Your task to perform on an android device: add a contact Image 0: 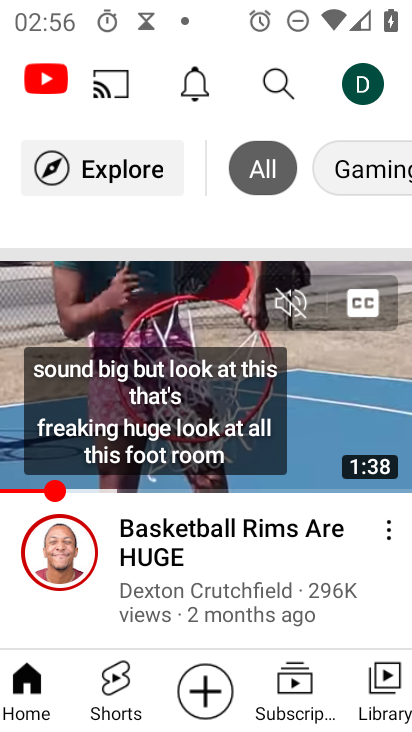
Step 0: press home button
Your task to perform on an android device: add a contact Image 1: 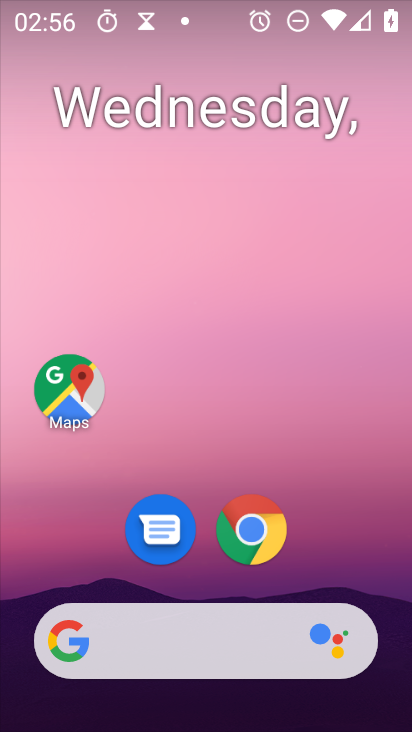
Step 1: drag from (170, 660) to (248, 2)
Your task to perform on an android device: add a contact Image 2: 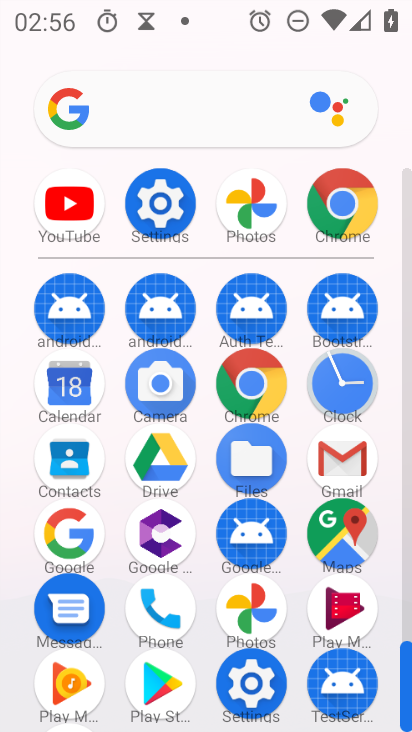
Step 2: click (50, 452)
Your task to perform on an android device: add a contact Image 3: 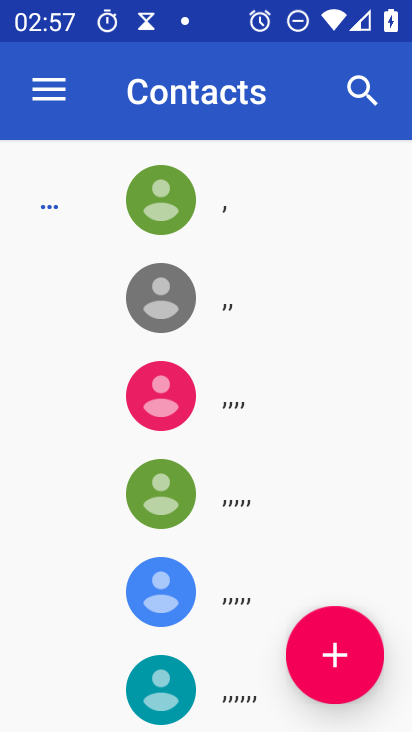
Step 3: click (311, 644)
Your task to perform on an android device: add a contact Image 4: 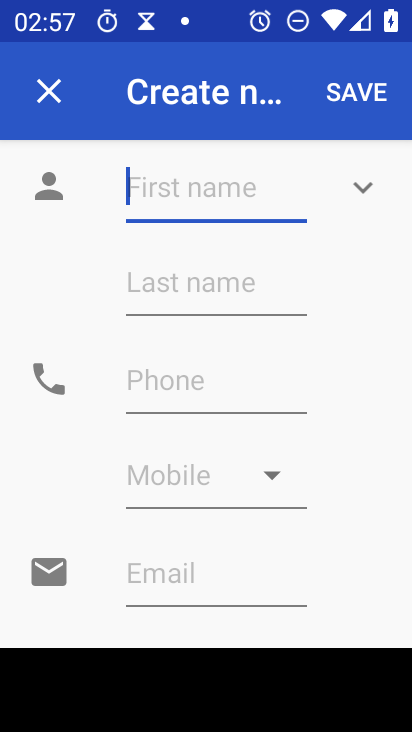
Step 4: type "hjfhhjhfj"
Your task to perform on an android device: add a contact Image 5: 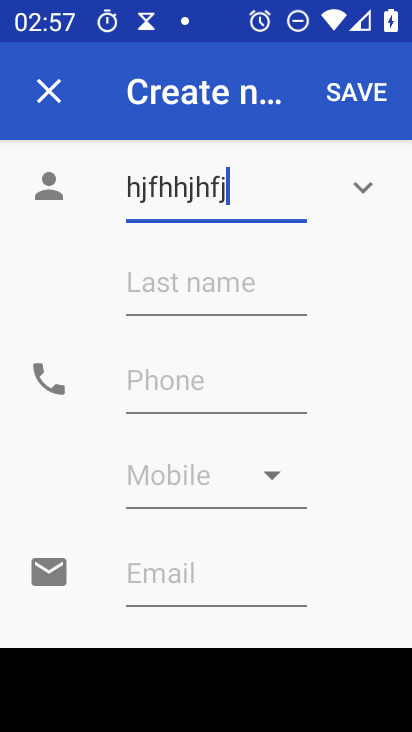
Step 5: click (238, 369)
Your task to perform on an android device: add a contact Image 6: 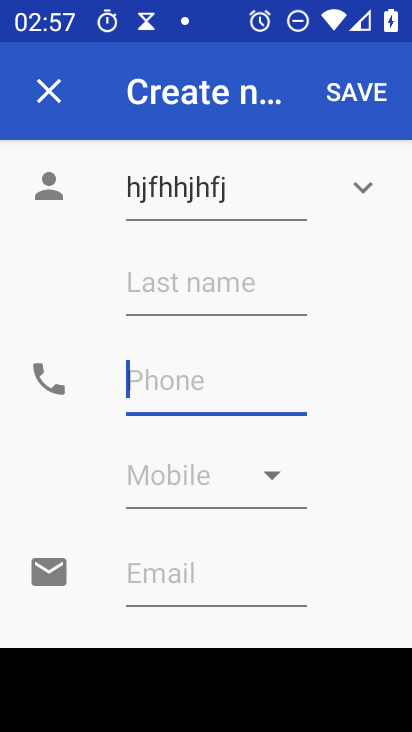
Step 6: type "9897678765"
Your task to perform on an android device: add a contact Image 7: 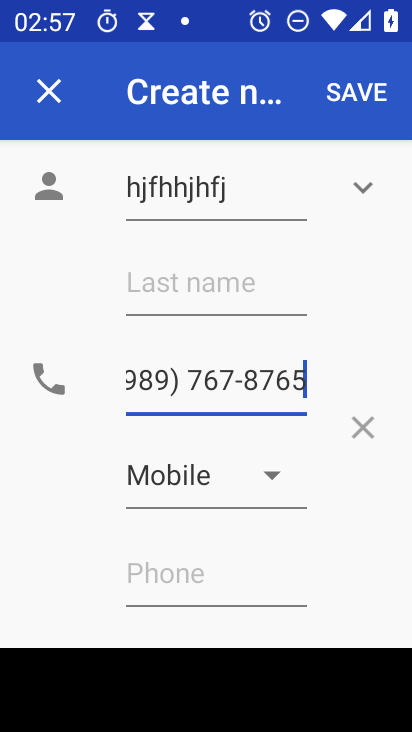
Step 7: click (357, 95)
Your task to perform on an android device: add a contact Image 8: 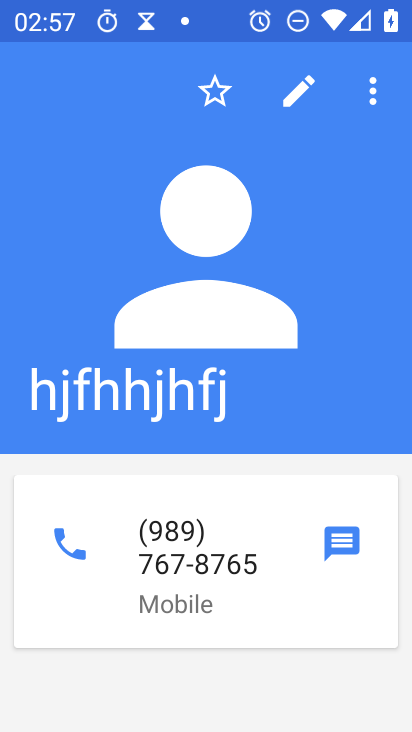
Step 8: task complete